Your task to perform on an android device: toggle data saver in the chrome app Image 0: 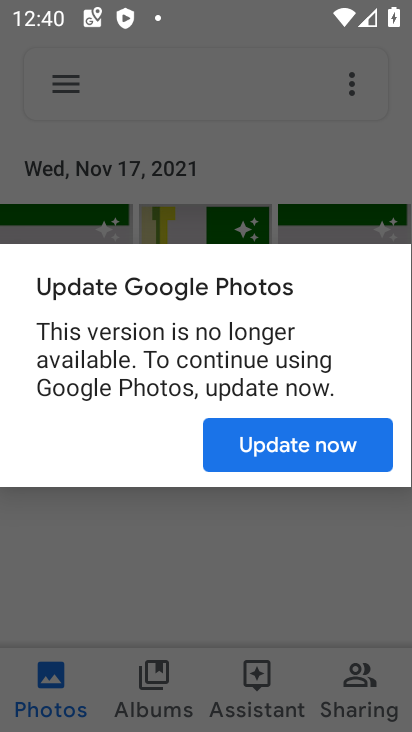
Step 0: press home button
Your task to perform on an android device: toggle data saver in the chrome app Image 1: 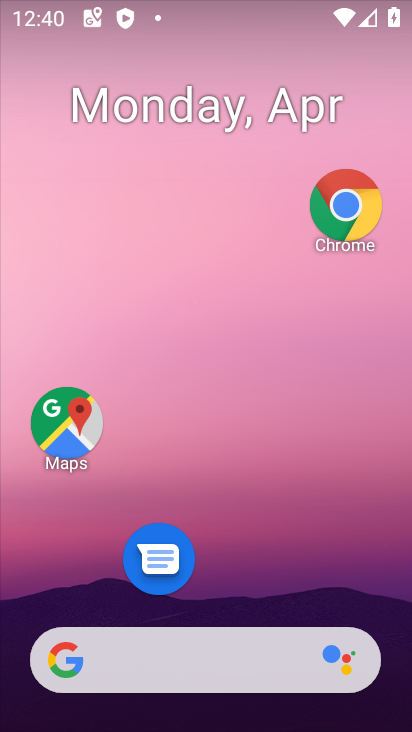
Step 1: click (368, 222)
Your task to perform on an android device: toggle data saver in the chrome app Image 2: 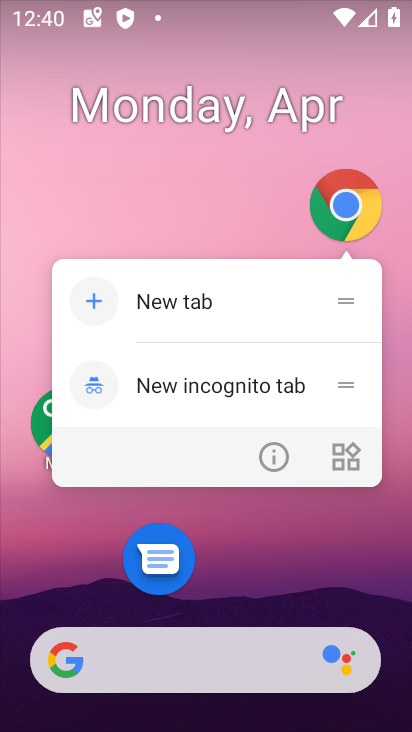
Step 2: click (223, 305)
Your task to perform on an android device: toggle data saver in the chrome app Image 3: 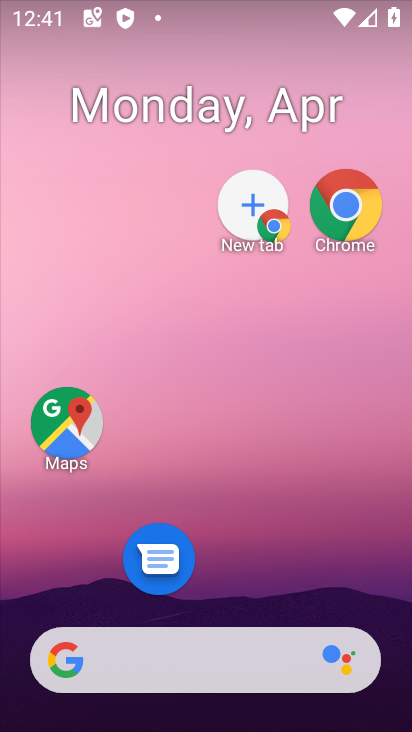
Step 3: click (358, 215)
Your task to perform on an android device: toggle data saver in the chrome app Image 4: 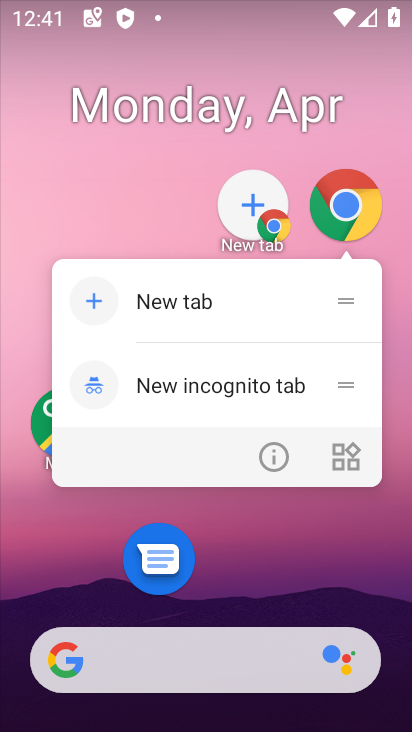
Step 4: click (253, 310)
Your task to perform on an android device: toggle data saver in the chrome app Image 5: 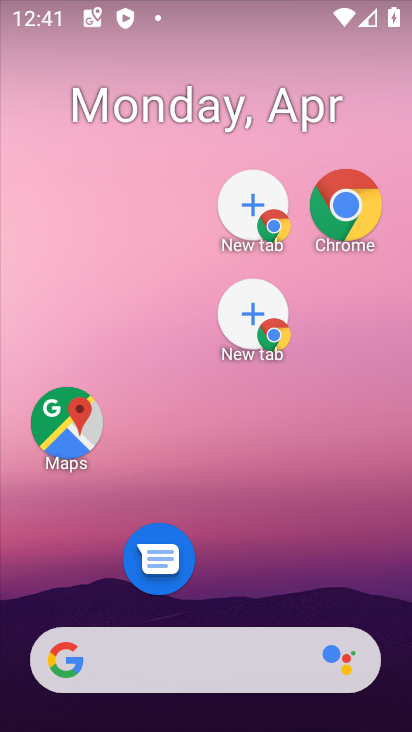
Step 5: click (249, 306)
Your task to perform on an android device: toggle data saver in the chrome app Image 6: 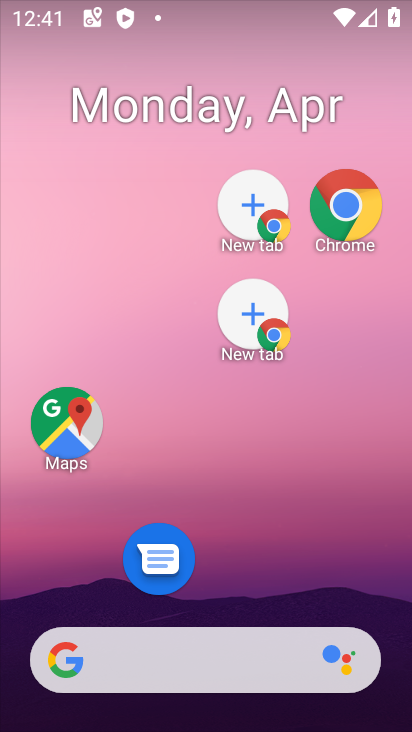
Step 6: click (246, 343)
Your task to perform on an android device: toggle data saver in the chrome app Image 7: 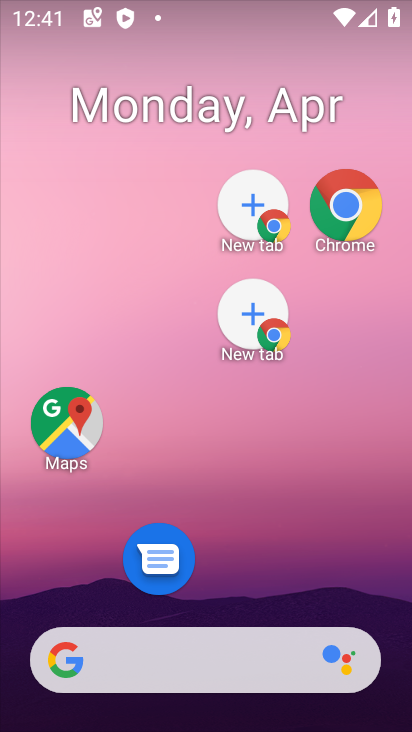
Step 7: click (329, 218)
Your task to perform on an android device: toggle data saver in the chrome app Image 8: 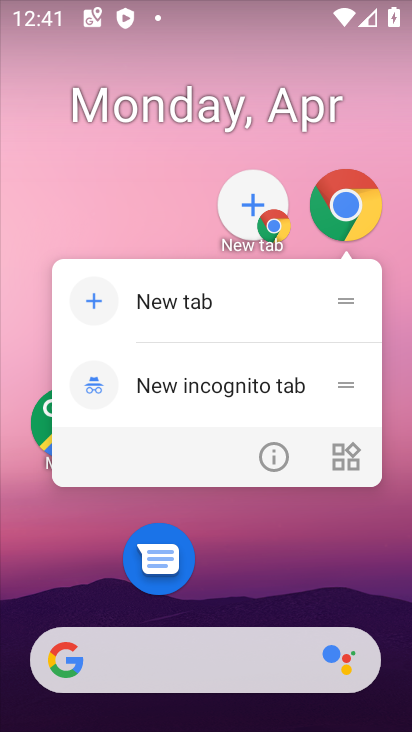
Step 8: click (272, 462)
Your task to perform on an android device: toggle data saver in the chrome app Image 9: 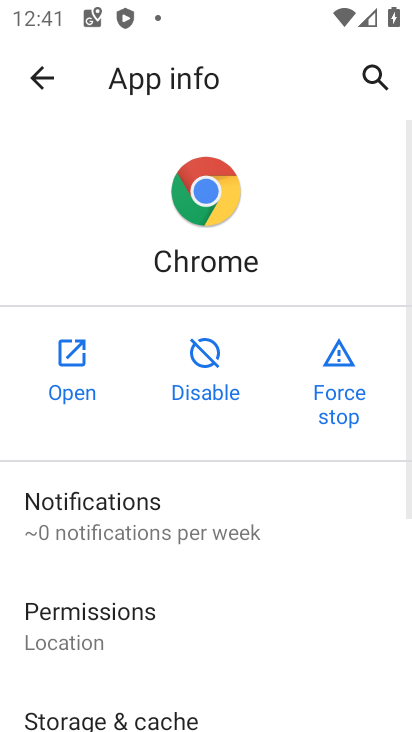
Step 9: click (83, 390)
Your task to perform on an android device: toggle data saver in the chrome app Image 10: 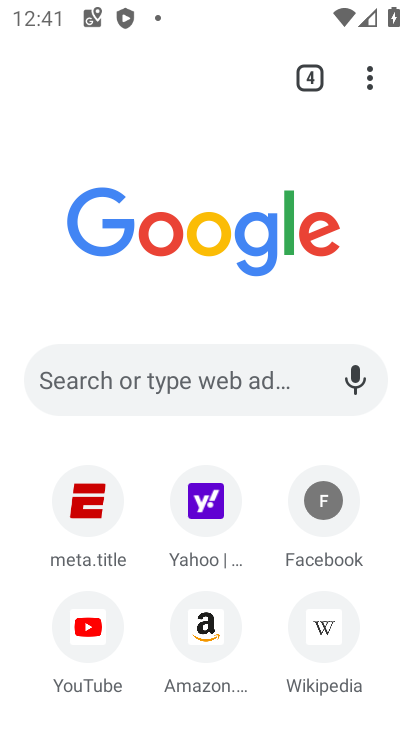
Step 10: click (370, 85)
Your task to perform on an android device: toggle data saver in the chrome app Image 11: 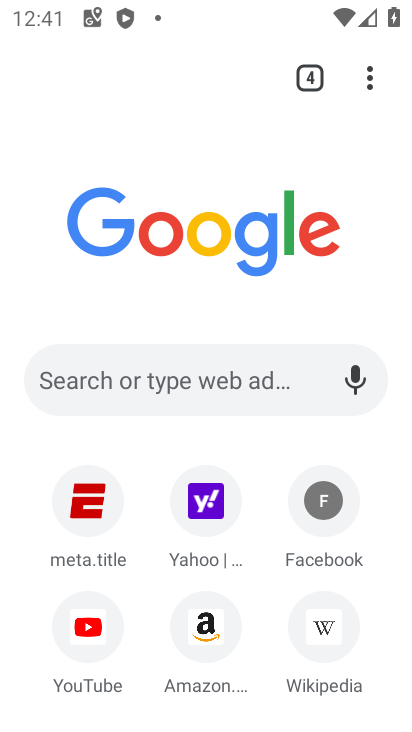
Step 11: click (370, 85)
Your task to perform on an android device: toggle data saver in the chrome app Image 12: 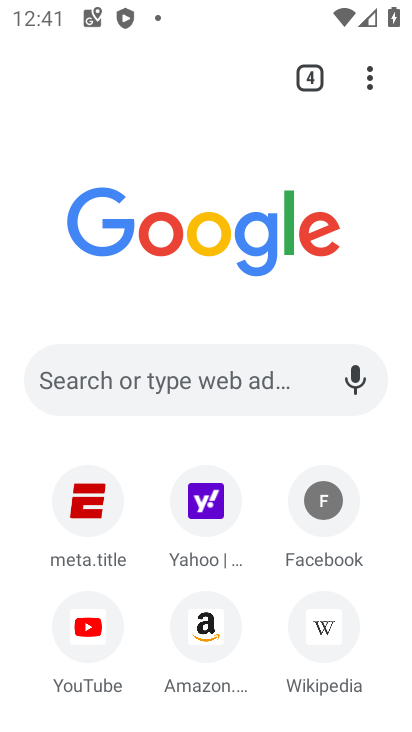
Step 12: click (371, 81)
Your task to perform on an android device: toggle data saver in the chrome app Image 13: 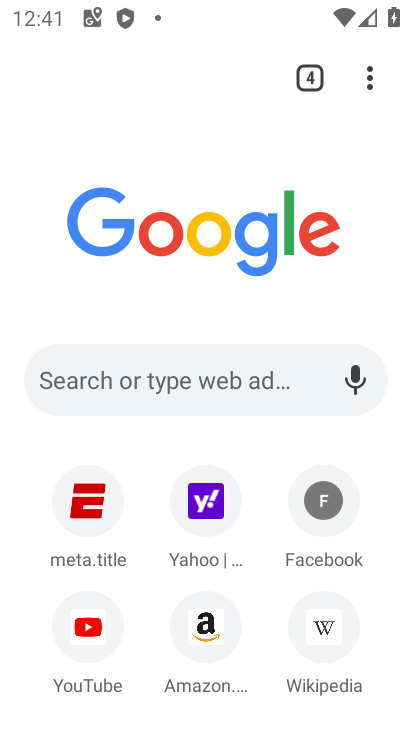
Step 13: click (370, 81)
Your task to perform on an android device: toggle data saver in the chrome app Image 14: 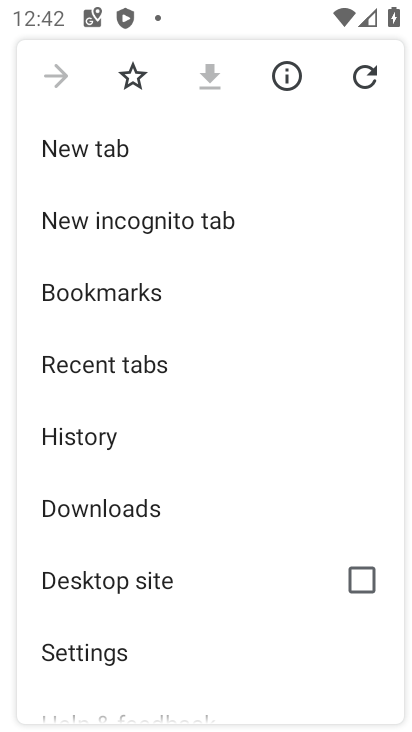
Step 14: click (127, 662)
Your task to perform on an android device: toggle data saver in the chrome app Image 15: 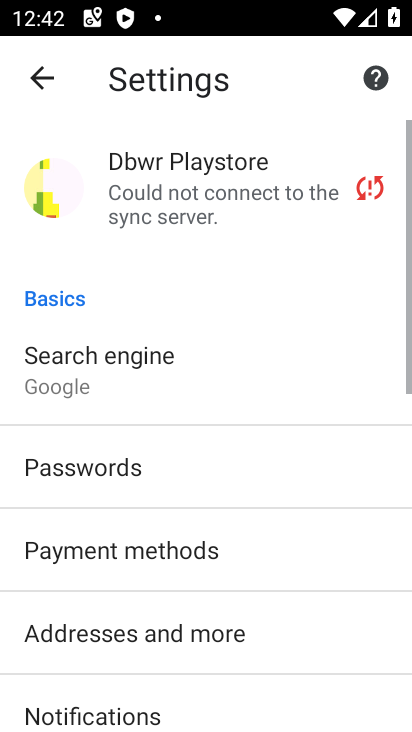
Step 15: drag from (154, 632) to (250, 259)
Your task to perform on an android device: toggle data saver in the chrome app Image 16: 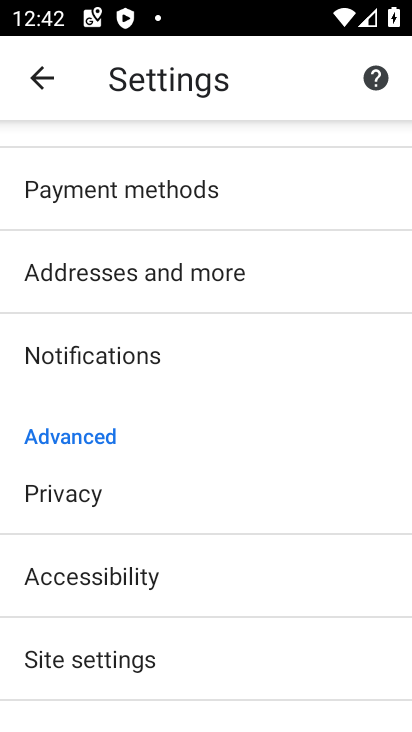
Step 16: click (161, 670)
Your task to perform on an android device: toggle data saver in the chrome app Image 17: 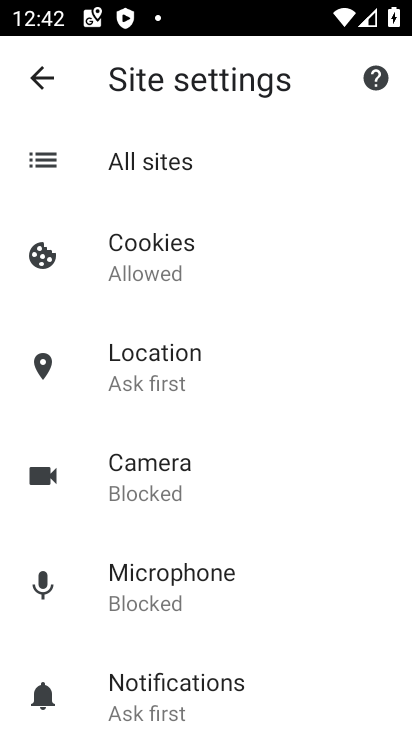
Step 17: click (39, 90)
Your task to perform on an android device: toggle data saver in the chrome app Image 18: 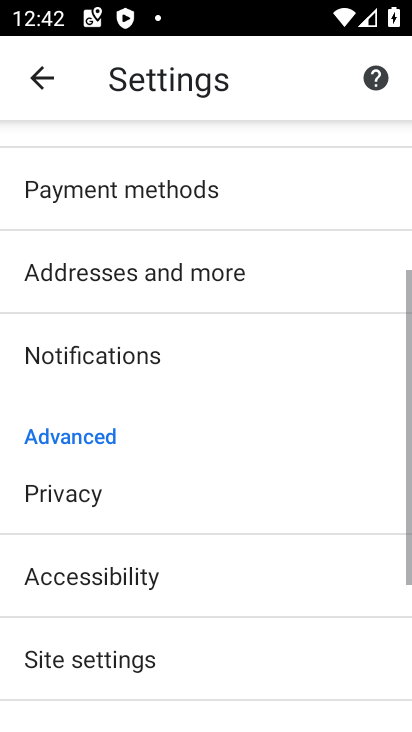
Step 18: drag from (212, 584) to (259, 239)
Your task to perform on an android device: toggle data saver in the chrome app Image 19: 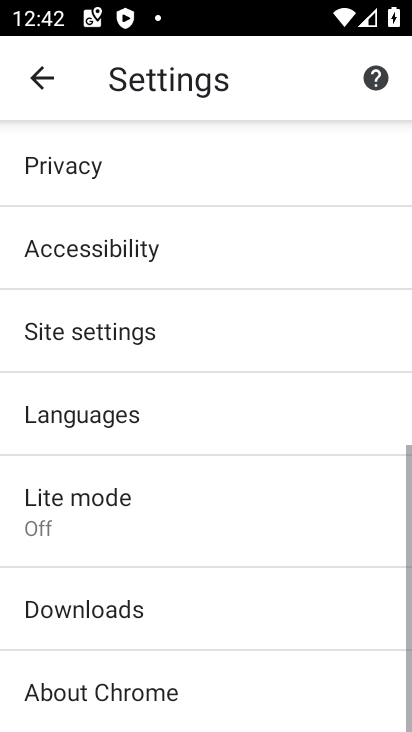
Step 19: click (158, 514)
Your task to perform on an android device: toggle data saver in the chrome app Image 20: 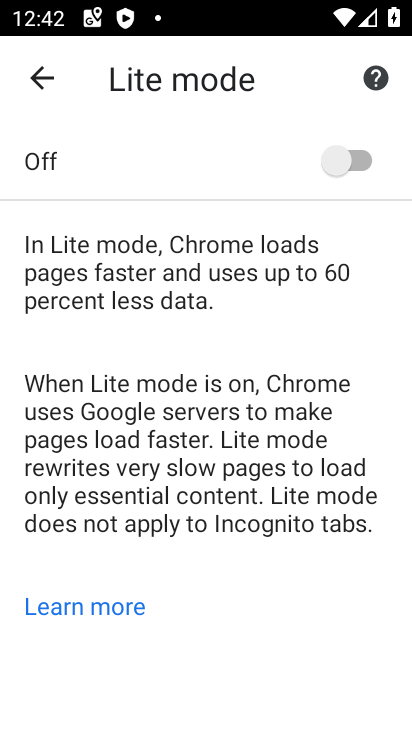
Step 20: click (349, 166)
Your task to perform on an android device: toggle data saver in the chrome app Image 21: 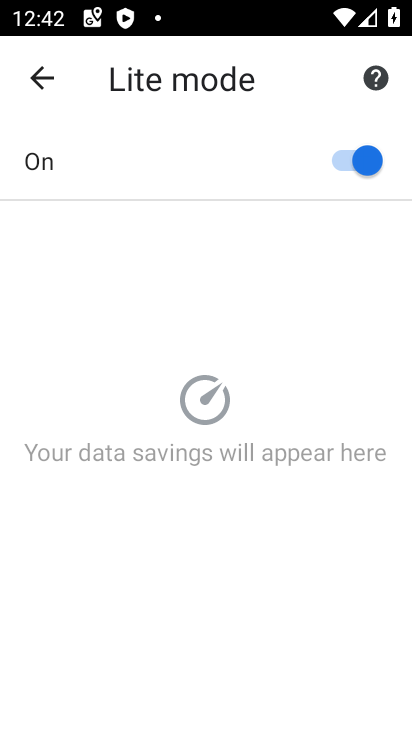
Step 21: task complete